Your task to perform on an android device: Find coffee shops on Maps Image 0: 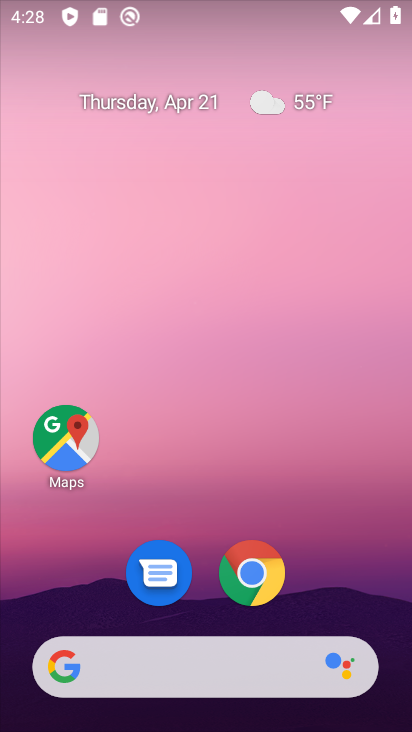
Step 0: click (72, 429)
Your task to perform on an android device: Find coffee shops on Maps Image 1: 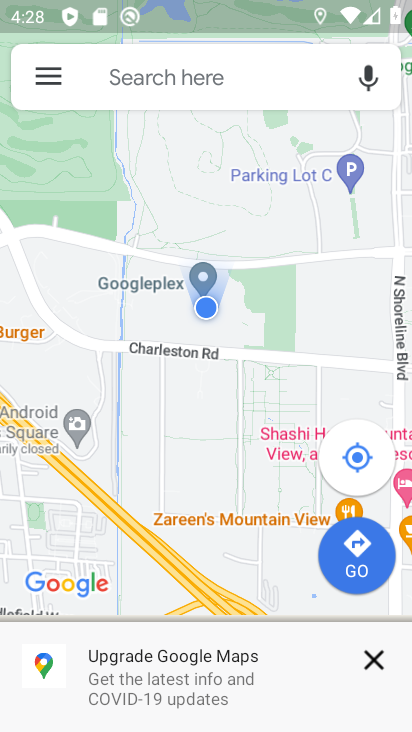
Step 1: click (103, 79)
Your task to perform on an android device: Find coffee shops on Maps Image 2: 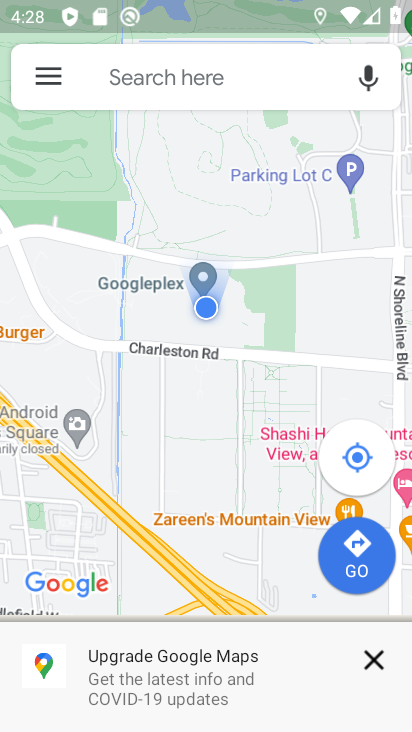
Step 2: click (168, 74)
Your task to perform on an android device: Find coffee shops on Maps Image 3: 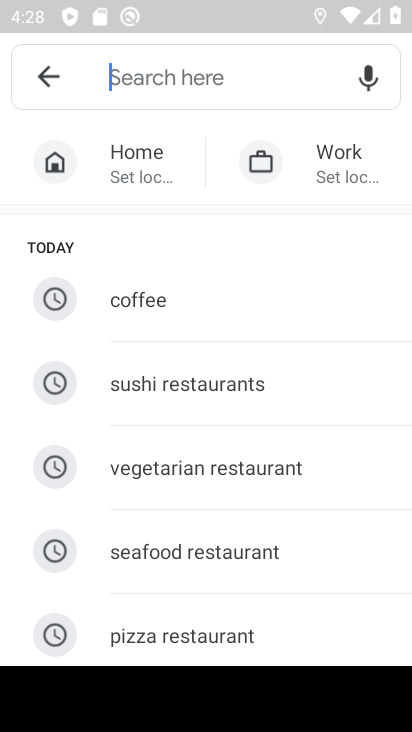
Step 3: type "coffee shops"
Your task to perform on an android device: Find coffee shops on Maps Image 4: 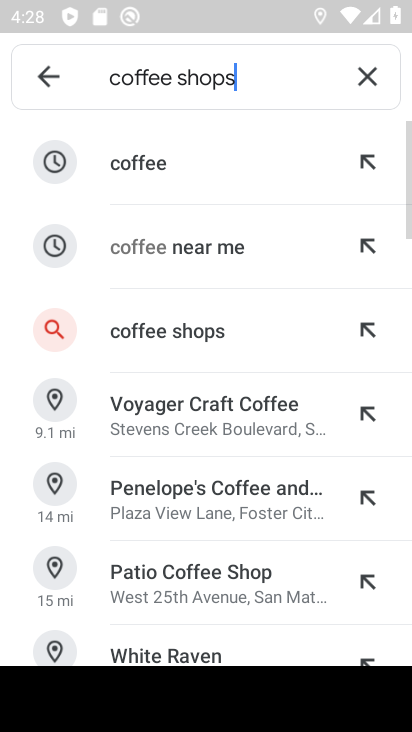
Step 4: click (178, 344)
Your task to perform on an android device: Find coffee shops on Maps Image 5: 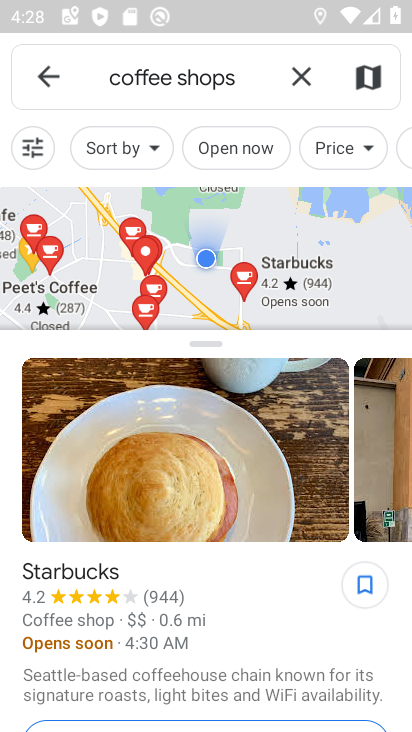
Step 5: task complete